Your task to perform on an android device: show emergency info Image 0: 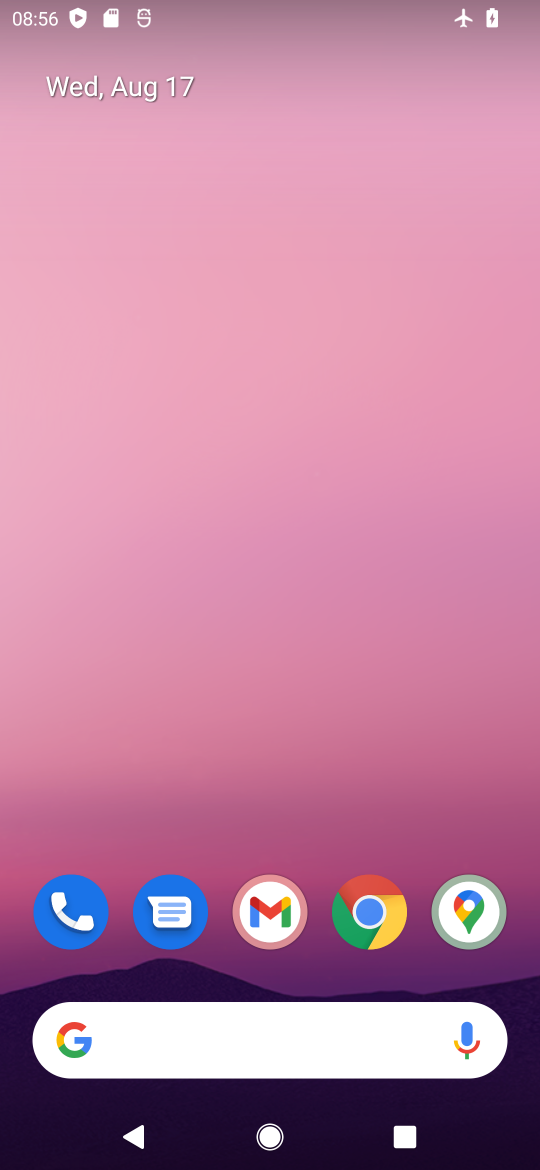
Step 0: drag from (355, 863) to (347, 221)
Your task to perform on an android device: show emergency info Image 1: 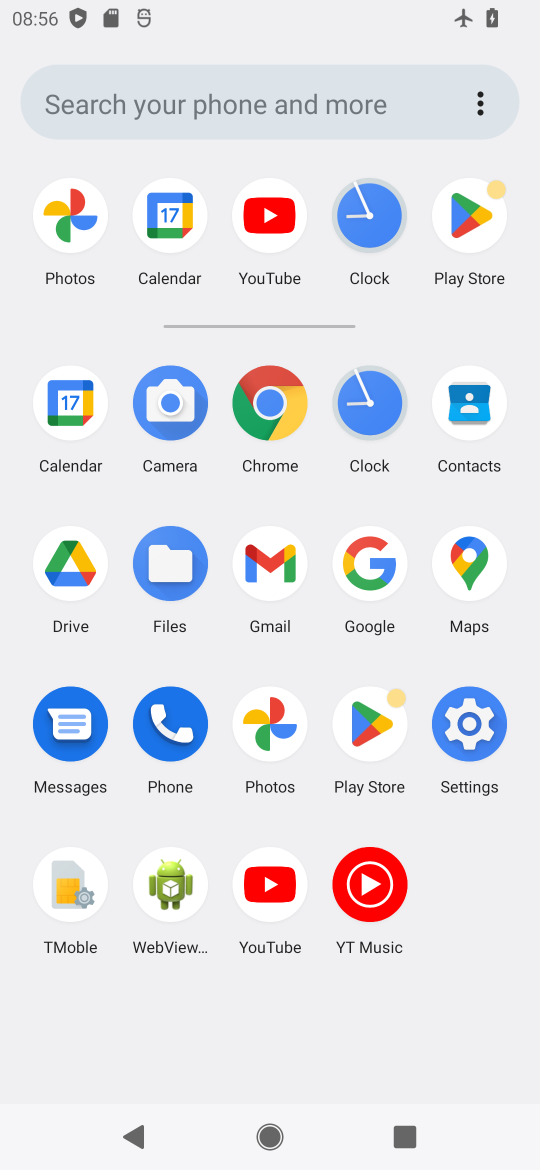
Step 1: click (485, 710)
Your task to perform on an android device: show emergency info Image 2: 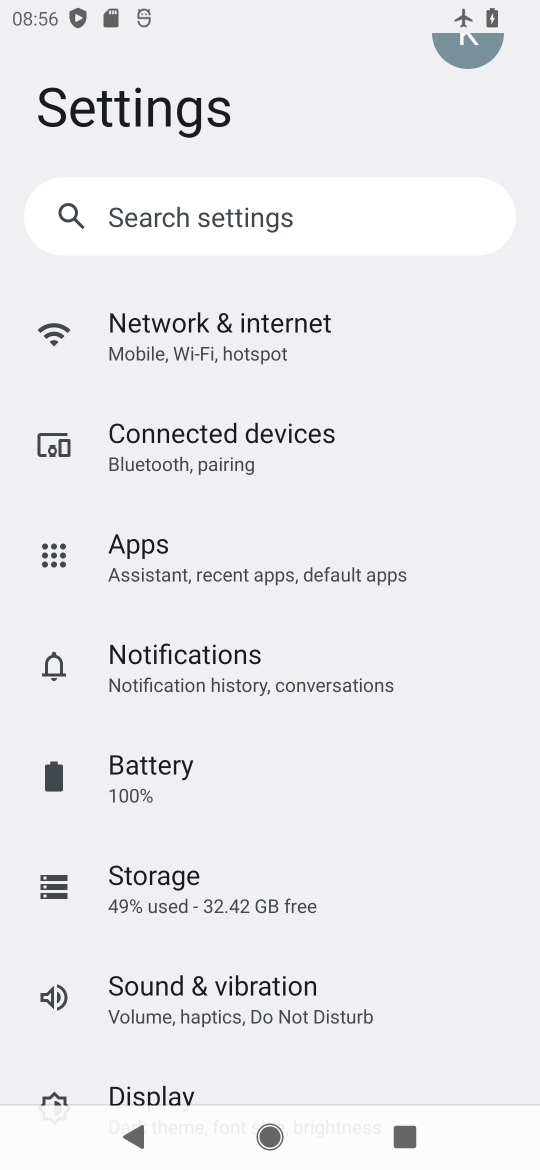
Step 2: drag from (224, 1007) to (193, 598)
Your task to perform on an android device: show emergency info Image 3: 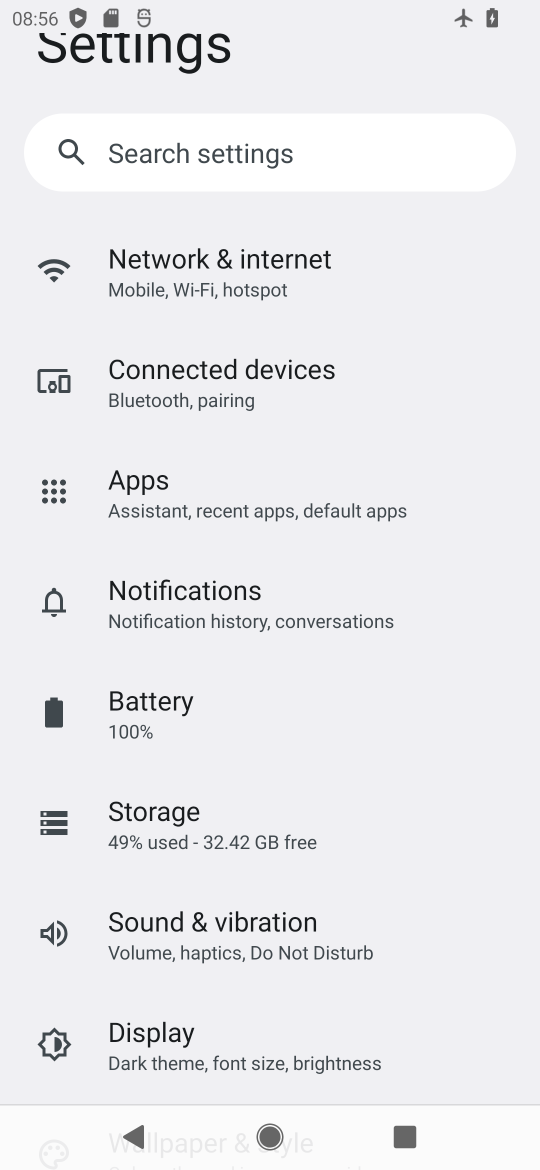
Step 3: drag from (227, 1005) to (227, 587)
Your task to perform on an android device: show emergency info Image 4: 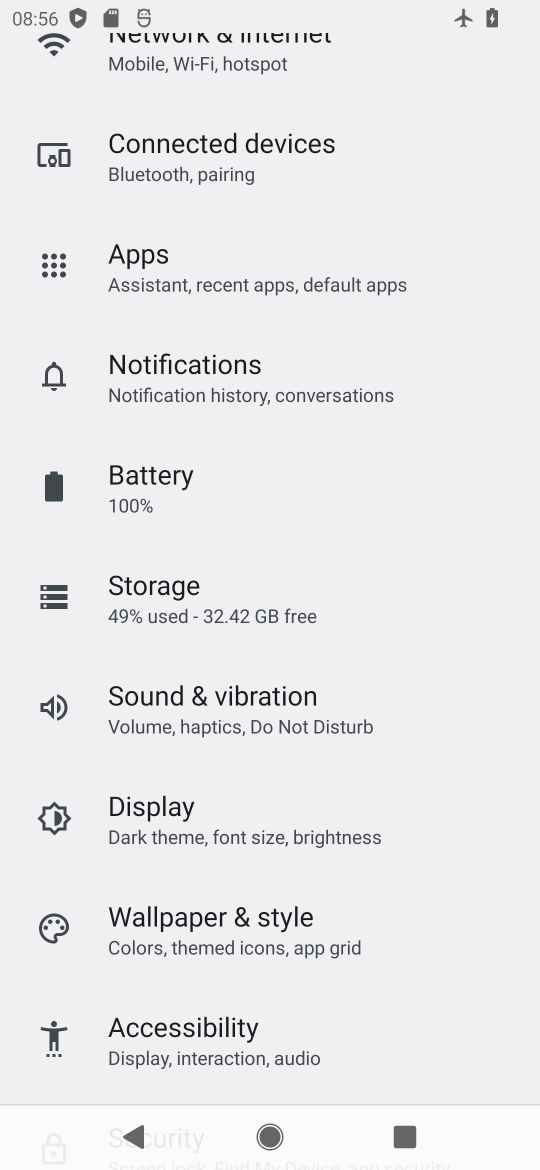
Step 4: drag from (200, 1049) to (219, 501)
Your task to perform on an android device: show emergency info Image 5: 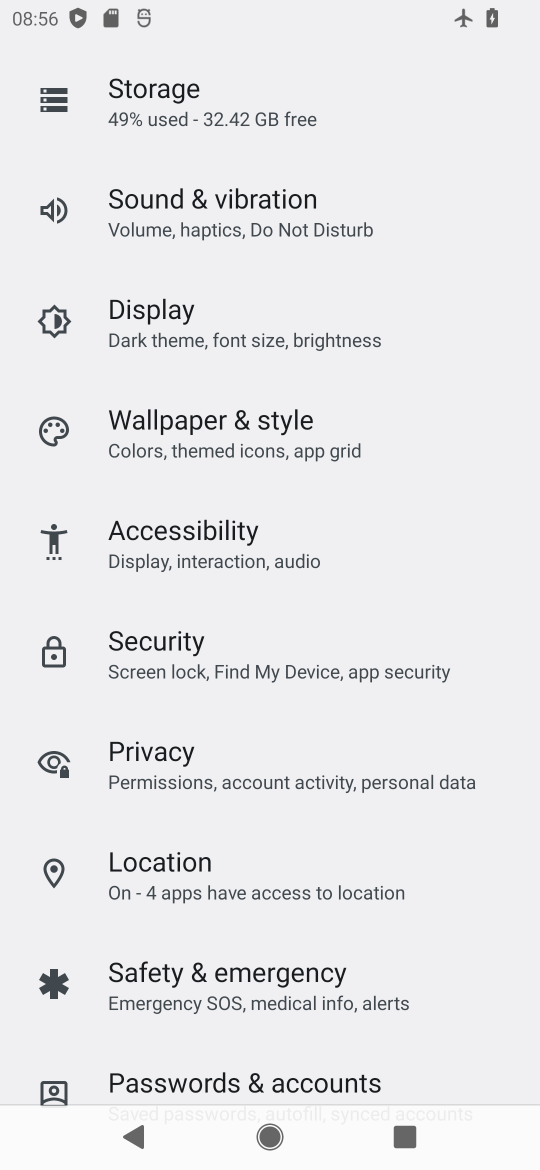
Step 5: drag from (160, 1008) to (248, 371)
Your task to perform on an android device: show emergency info Image 6: 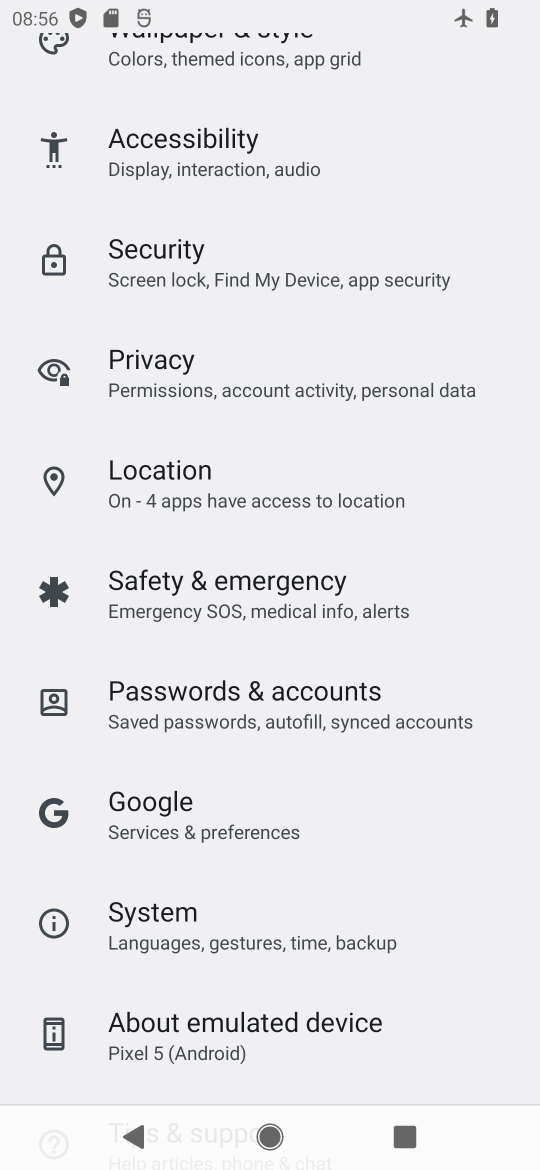
Step 6: click (199, 614)
Your task to perform on an android device: show emergency info Image 7: 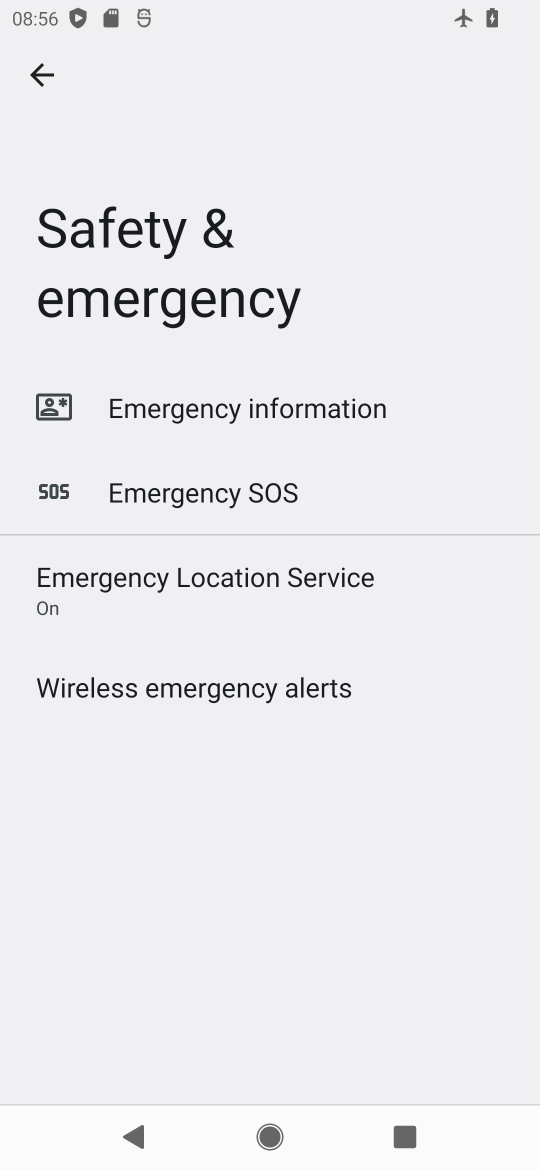
Step 7: click (128, 399)
Your task to perform on an android device: show emergency info Image 8: 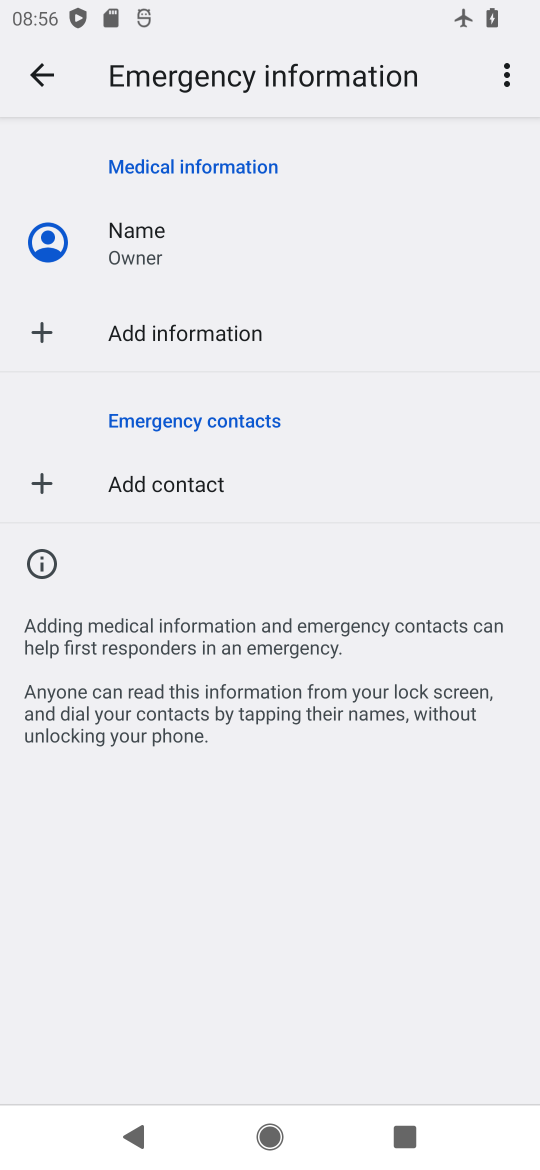
Step 8: task complete